Your task to perform on an android device: Open Reddit.com Image 0: 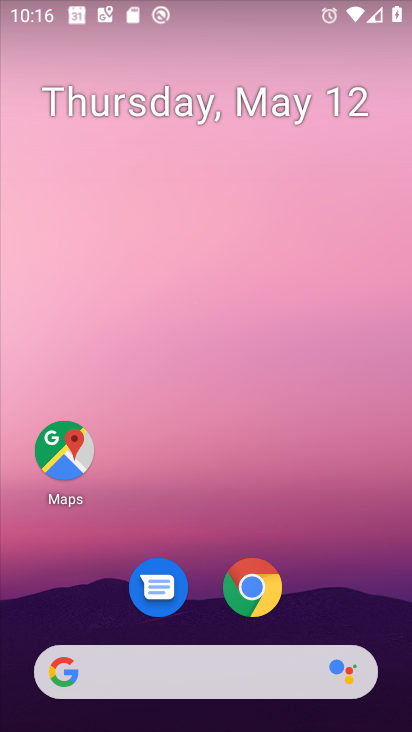
Step 0: drag from (356, 614) to (270, 69)
Your task to perform on an android device: Open Reddit.com Image 1: 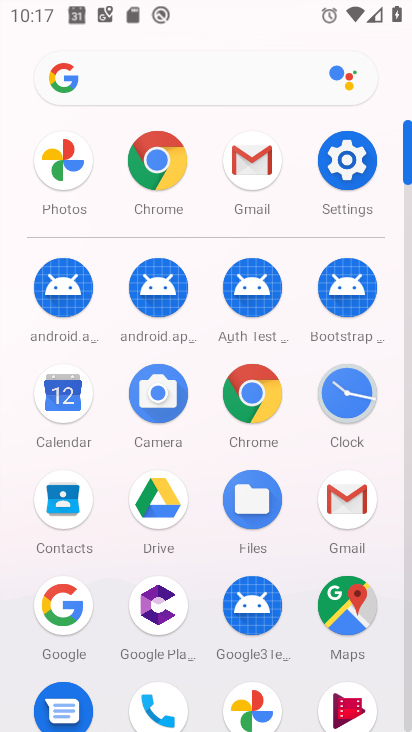
Step 1: click (161, 170)
Your task to perform on an android device: Open Reddit.com Image 2: 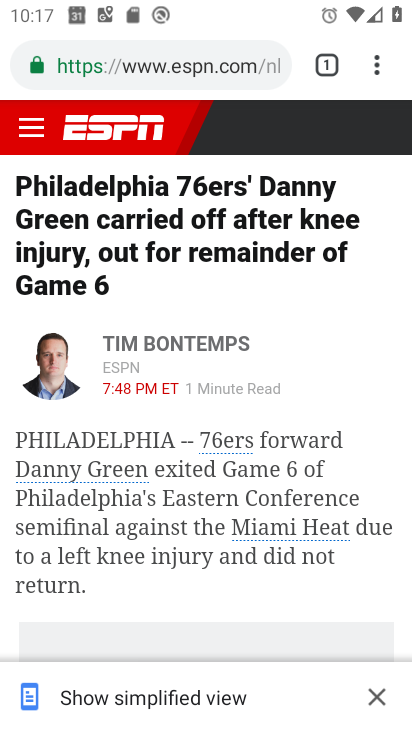
Step 2: press back button
Your task to perform on an android device: Open Reddit.com Image 3: 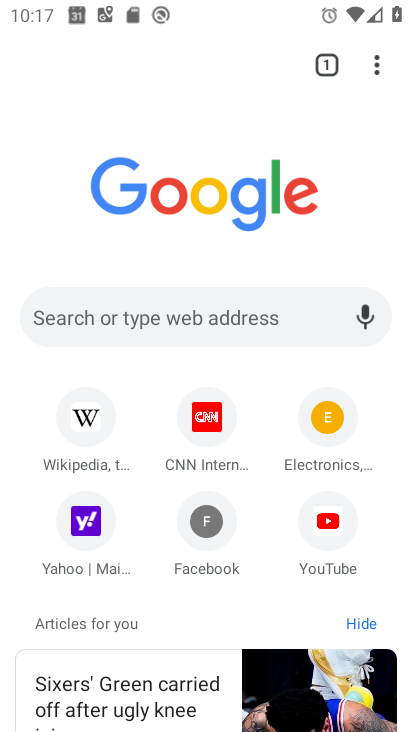
Step 3: click (146, 310)
Your task to perform on an android device: Open Reddit.com Image 4: 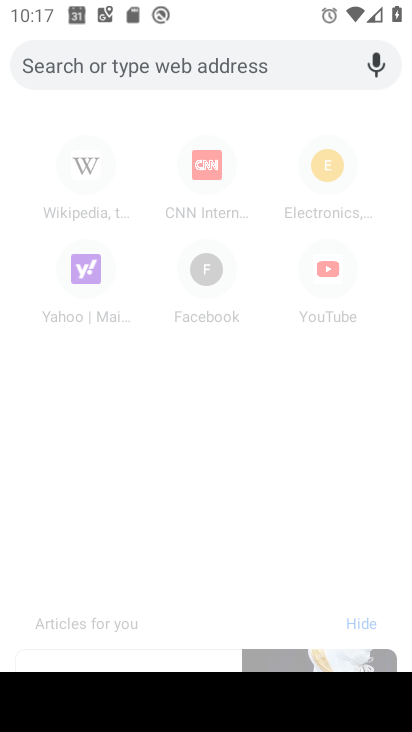
Step 4: type "reddit.com"
Your task to perform on an android device: Open Reddit.com Image 5: 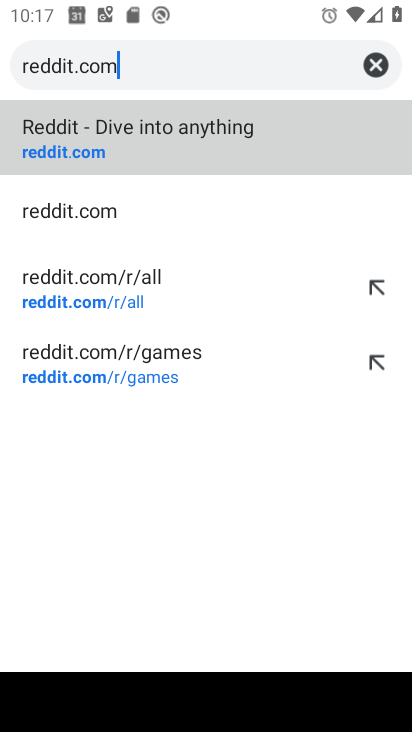
Step 5: click (282, 145)
Your task to perform on an android device: Open Reddit.com Image 6: 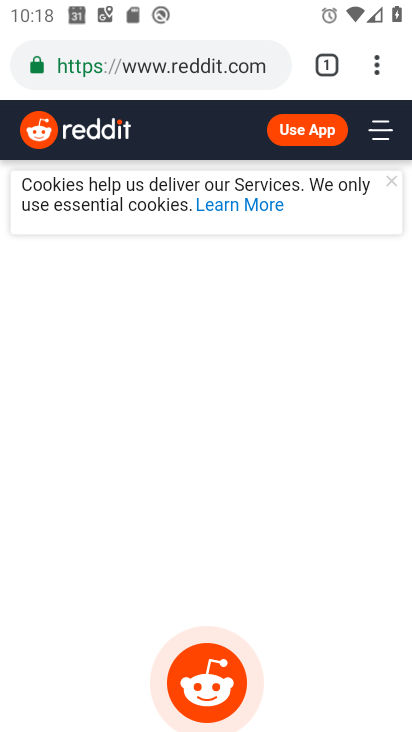
Step 6: task complete